Your task to perform on an android device: set default search engine in the chrome app Image 0: 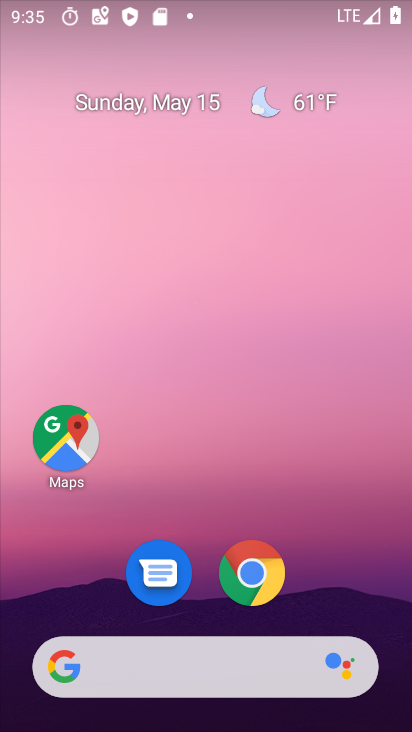
Step 0: press home button
Your task to perform on an android device: set default search engine in the chrome app Image 1: 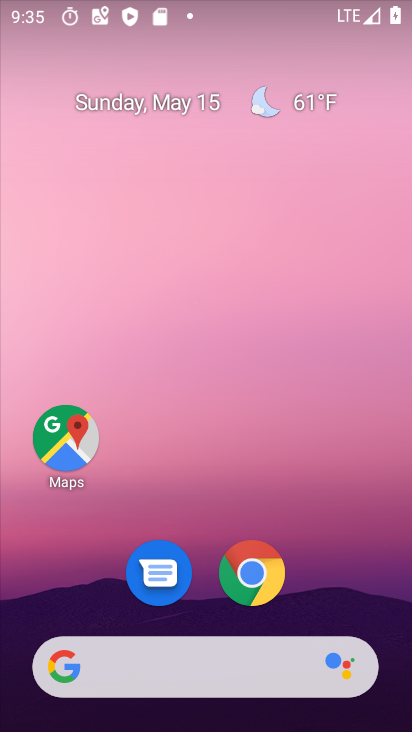
Step 1: click (238, 576)
Your task to perform on an android device: set default search engine in the chrome app Image 2: 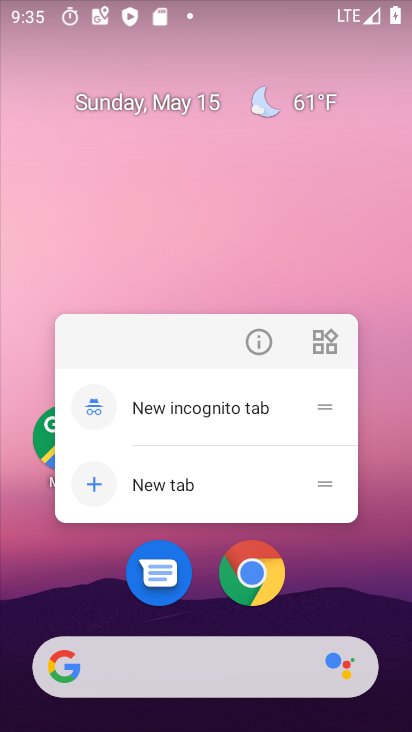
Step 2: click (249, 568)
Your task to perform on an android device: set default search engine in the chrome app Image 3: 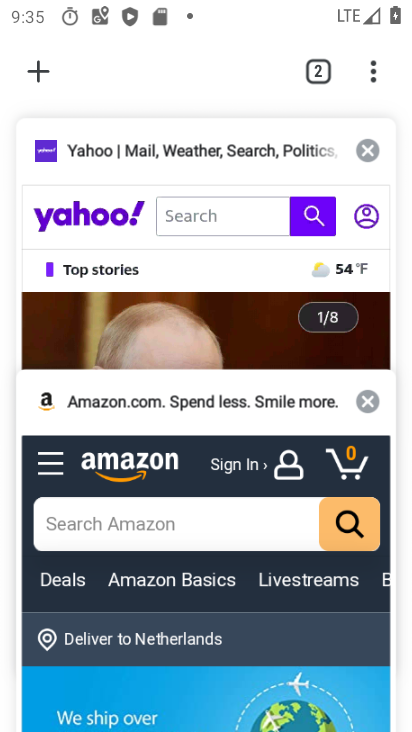
Step 3: click (375, 72)
Your task to perform on an android device: set default search engine in the chrome app Image 4: 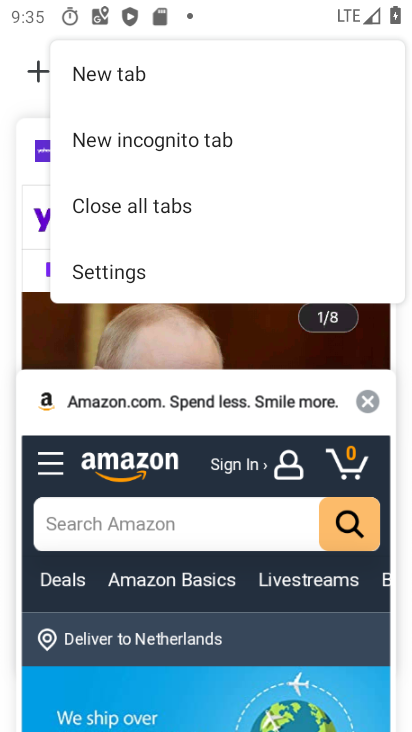
Step 4: click (96, 79)
Your task to perform on an android device: set default search engine in the chrome app Image 5: 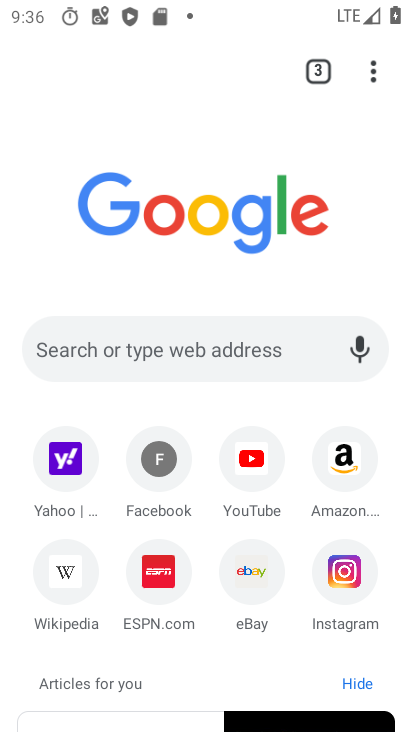
Step 5: task complete